Your task to perform on an android device: move a message to another label in the gmail app Image 0: 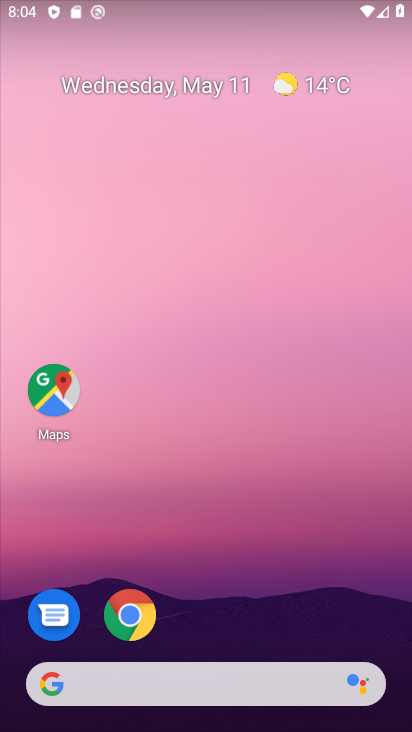
Step 0: drag from (301, 618) to (289, 191)
Your task to perform on an android device: move a message to another label in the gmail app Image 1: 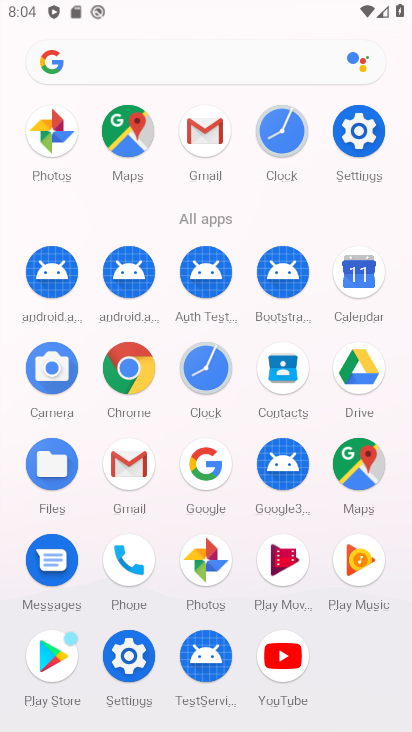
Step 1: click (197, 143)
Your task to perform on an android device: move a message to another label in the gmail app Image 2: 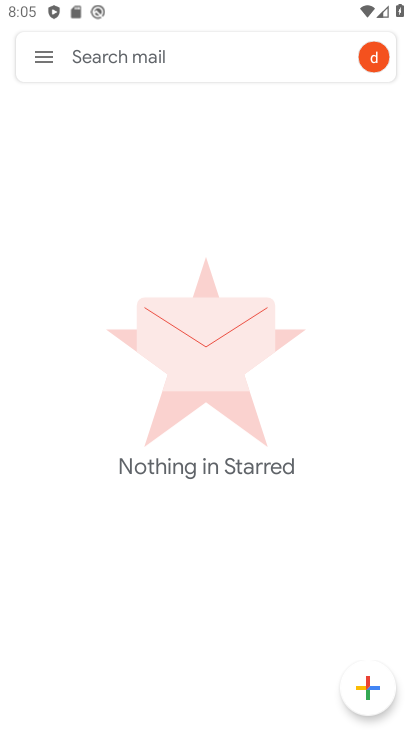
Step 2: click (45, 66)
Your task to perform on an android device: move a message to another label in the gmail app Image 3: 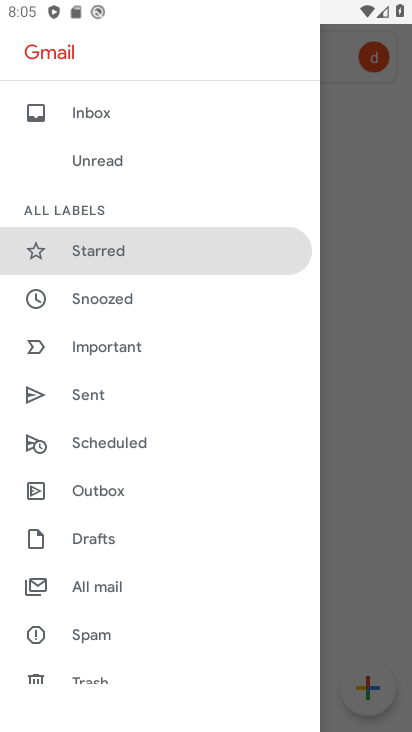
Step 3: click (130, 592)
Your task to perform on an android device: move a message to another label in the gmail app Image 4: 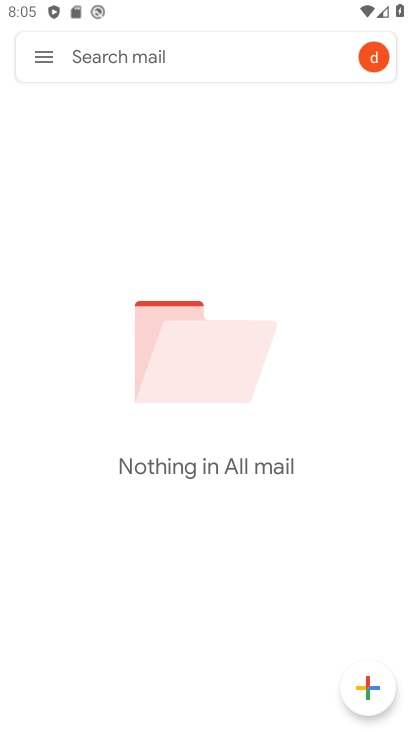
Step 4: task complete